Your task to perform on an android device: Is it going to rain this weekend? Image 0: 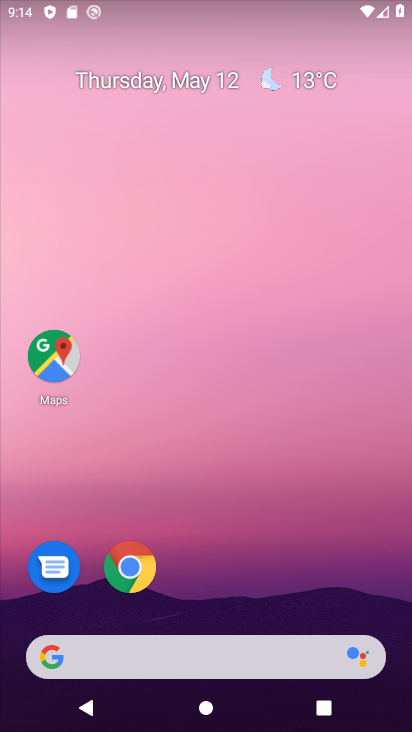
Step 0: click (207, 652)
Your task to perform on an android device: Is it going to rain this weekend? Image 1: 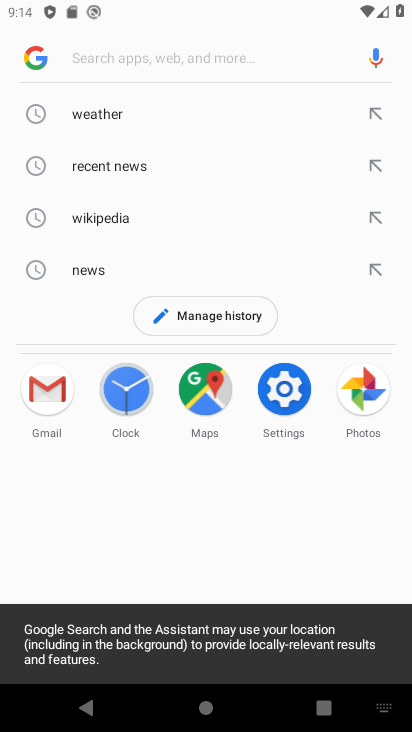
Step 1: click (97, 109)
Your task to perform on an android device: Is it going to rain this weekend? Image 2: 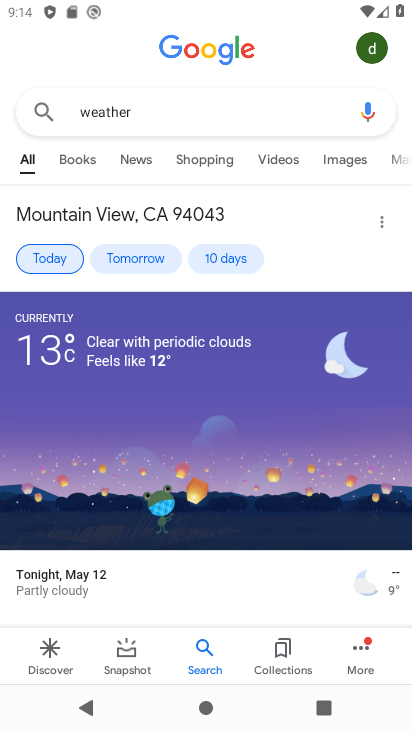
Step 2: click (217, 252)
Your task to perform on an android device: Is it going to rain this weekend? Image 3: 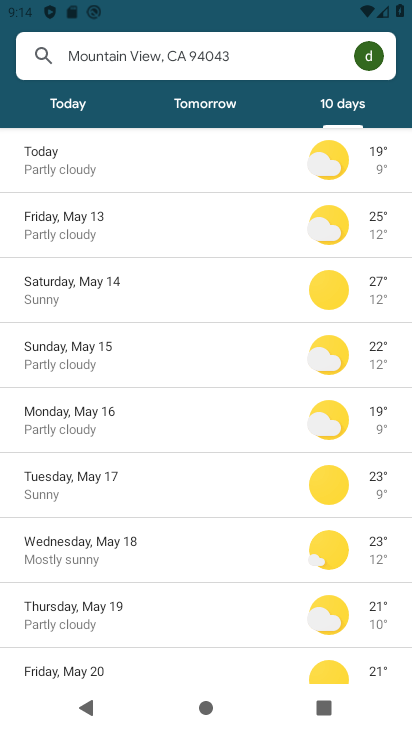
Step 3: task complete